Your task to perform on an android device: delete a single message in the gmail app Image 0: 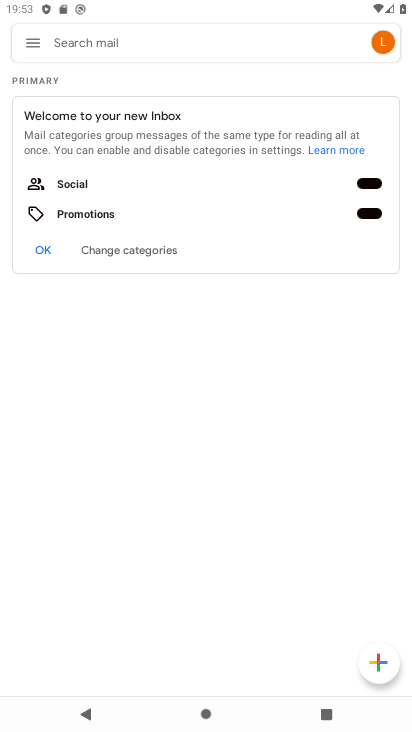
Step 0: press home button
Your task to perform on an android device: delete a single message in the gmail app Image 1: 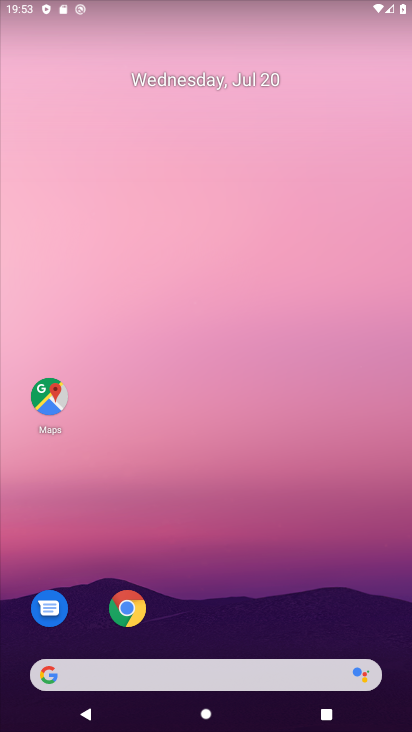
Step 1: click (207, 413)
Your task to perform on an android device: delete a single message in the gmail app Image 2: 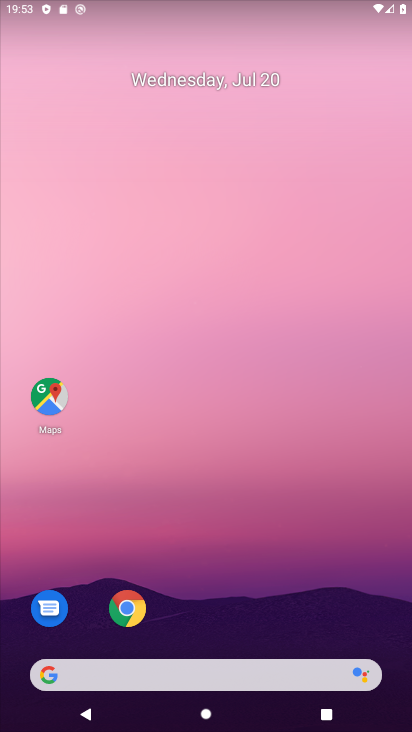
Step 2: drag from (247, 546) to (203, 94)
Your task to perform on an android device: delete a single message in the gmail app Image 3: 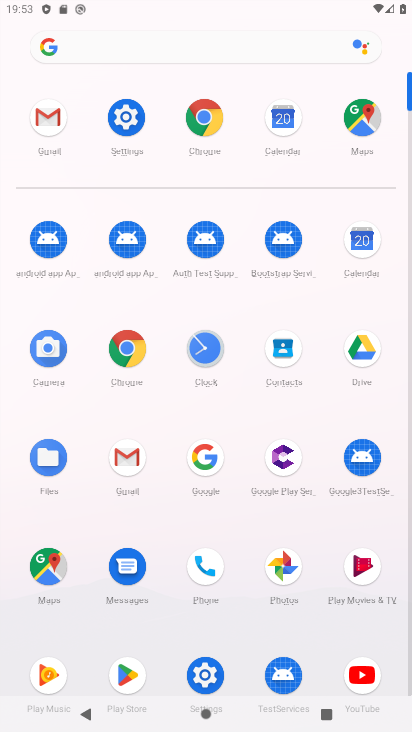
Step 3: click (46, 116)
Your task to perform on an android device: delete a single message in the gmail app Image 4: 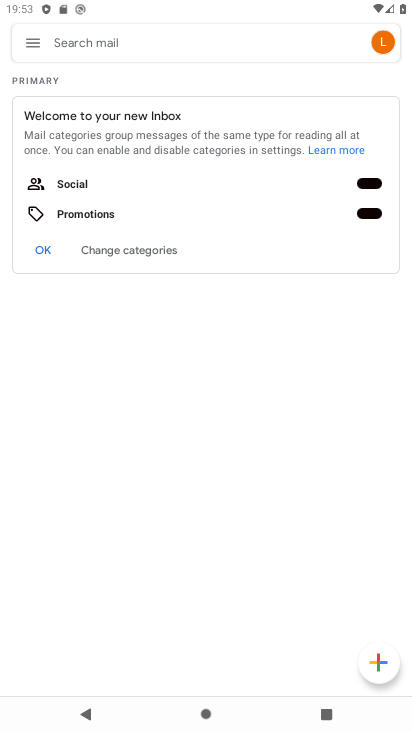
Step 4: click (22, 42)
Your task to perform on an android device: delete a single message in the gmail app Image 5: 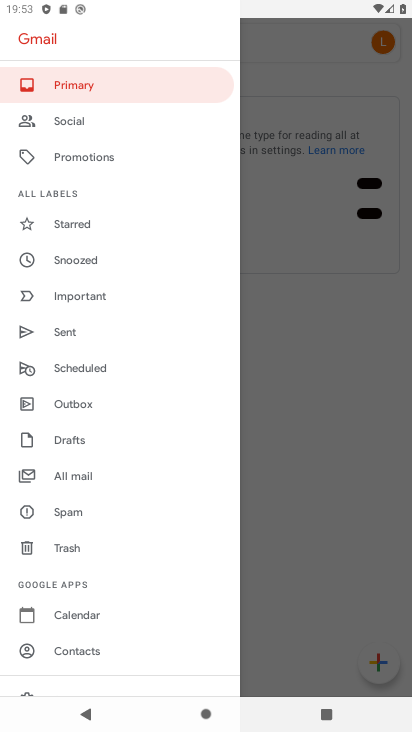
Step 5: drag from (78, 639) to (106, 286)
Your task to perform on an android device: delete a single message in the gmail app Image 6: 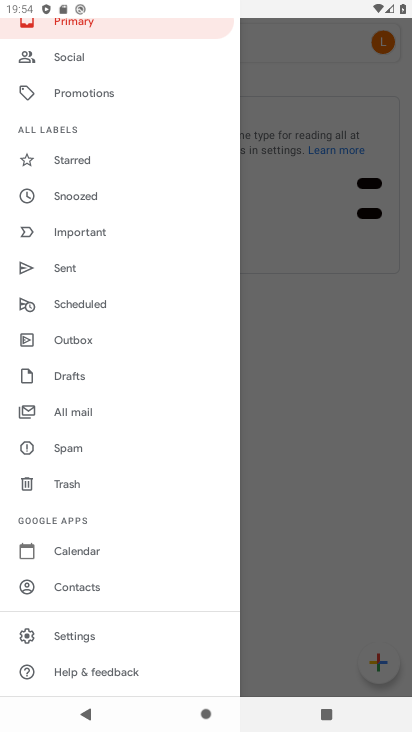
Step 6: click (67, 414)
Your task to perform on an android device: delete a single message in the gmail app Image 7: 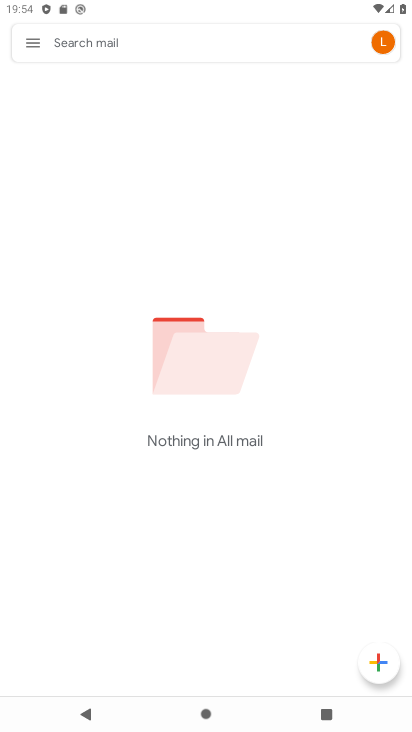
Step 7: task complete